Your task to perform on an android device: open a bookmark in the chrome app Image 0: 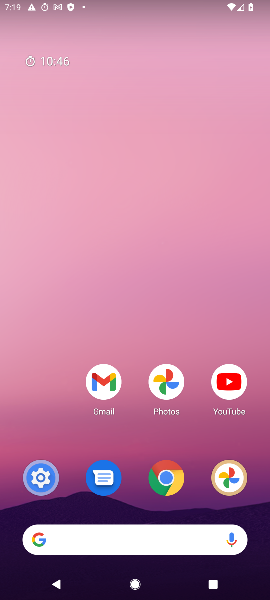
Step 0: drag from (128, 515) to (138, 89)
Your task to perform on an android device: open a bookmark in the chrome app Image 1: 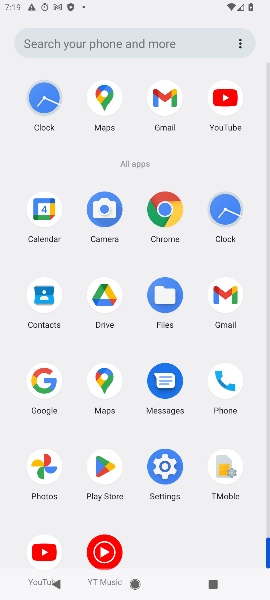
Step 1: click (161, 210)
Your task to perform on an android device: open a bookmark in the chrome app Image 2: 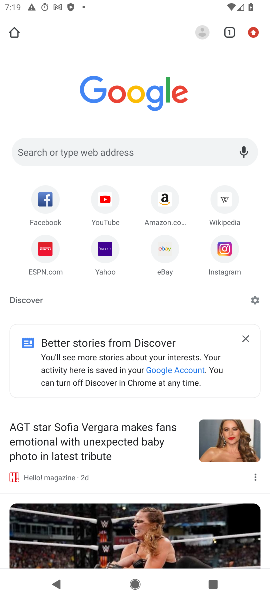
Step 2: task complete